Your task to perform on an android device: open a bookmark in the chrome app Image 0: 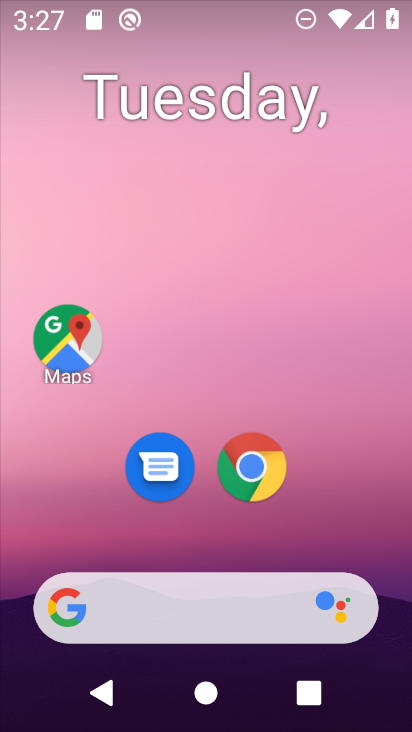
Step 0: click (263, 475)
Your task to perform on an android device: open a bookmark in the chrome app Image 1: 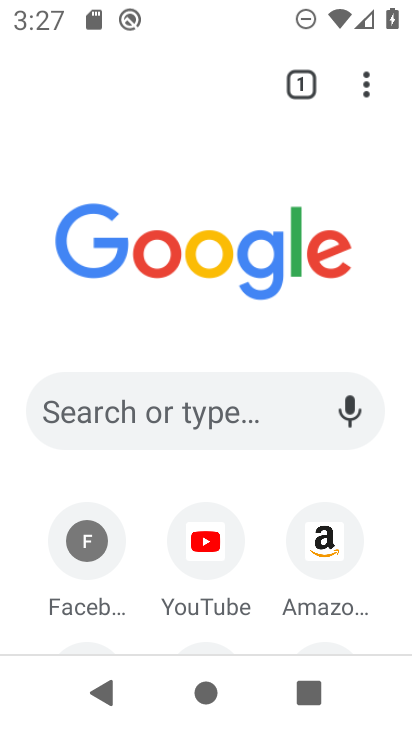
Step 1: click (370, 85)
Your task to perform on an android device: open a bookmark in the chrome app Image 2: 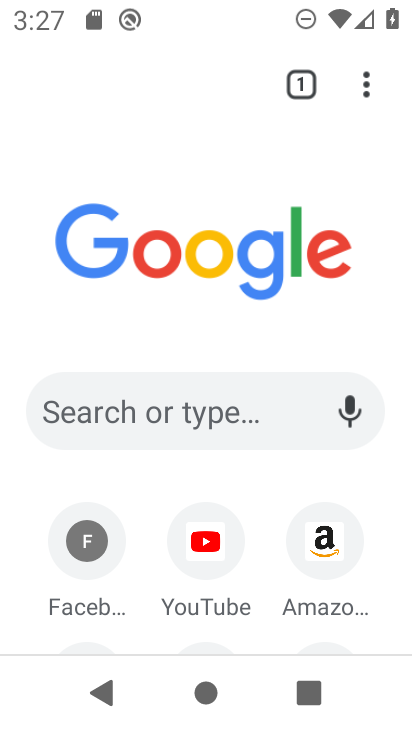
Step 2: task complete